Your task to perform on an android device: What's the weather today? Image 0: 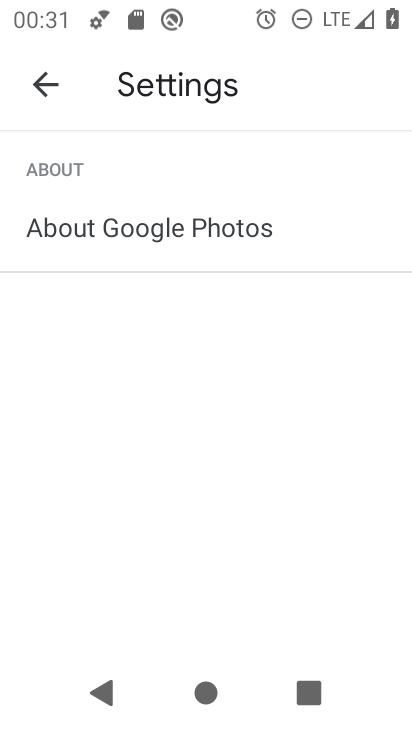
Step 0: press home button
Your task to perform on an android device: What's the weather today? Image 1: 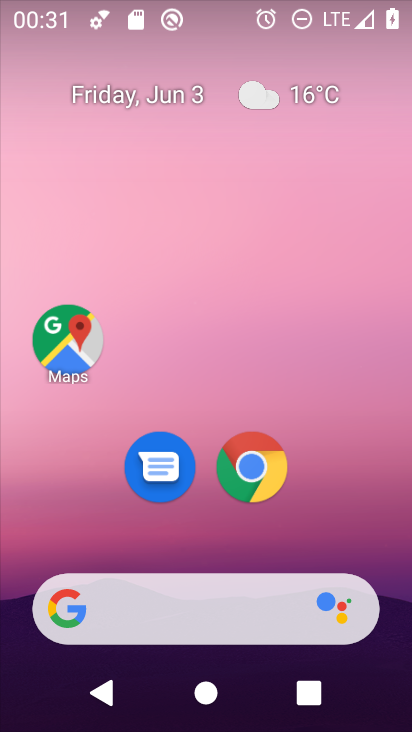
Step 1: click (296, 89)
Your task to perform on an android device: What's the weather today? Image 2: 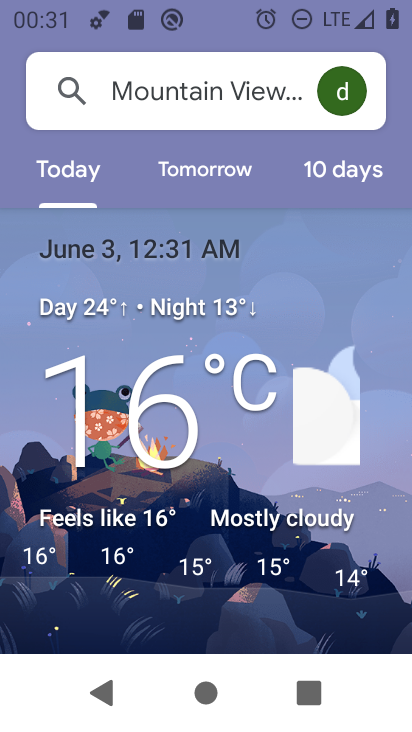
Step 2: task complete